Your task to perform on an android device: turn on wifi Image 0: 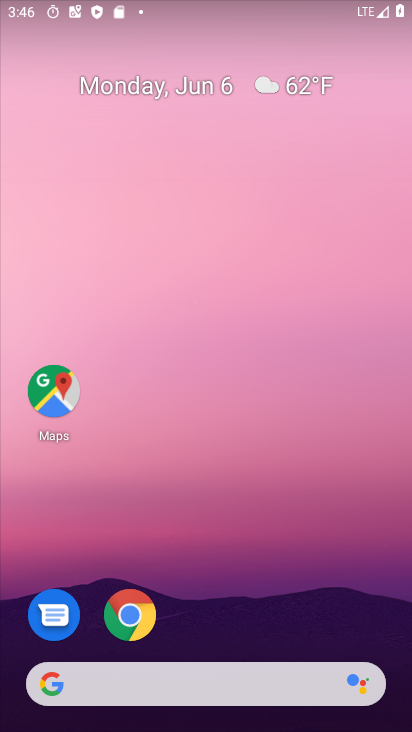
Step 0: drag from (285, 691) to (278, 75)
Your task to perform on an android device: turn on wifi Image 1: 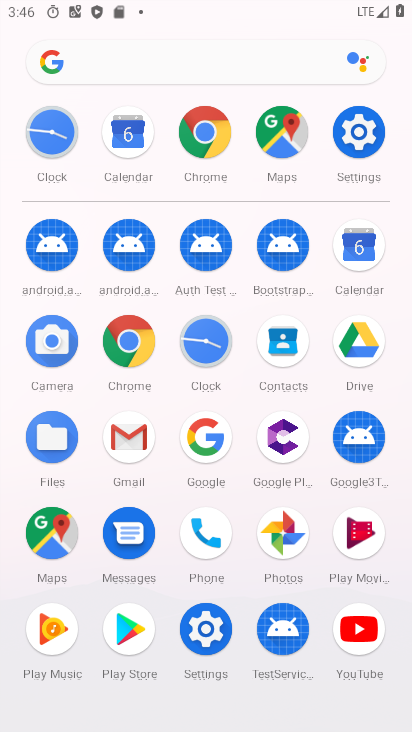
Step 1: click (362, 126)
Your task to perform on an android device: turn on wifi Image 2: 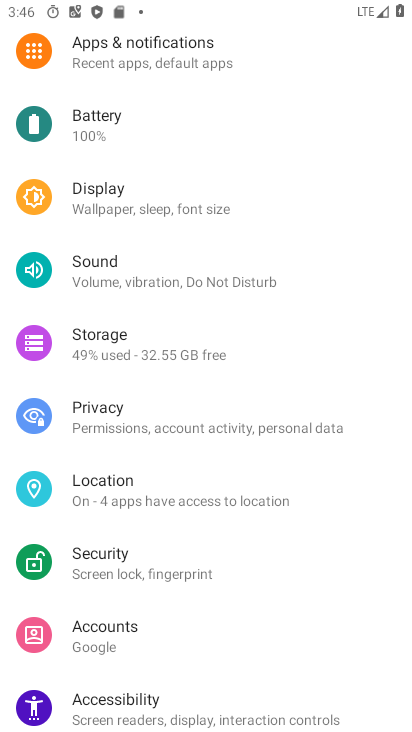
Step 2: drag from (173, 172) to (197, 713)
Your task to perform on an android device: turn on wifi Image 3: 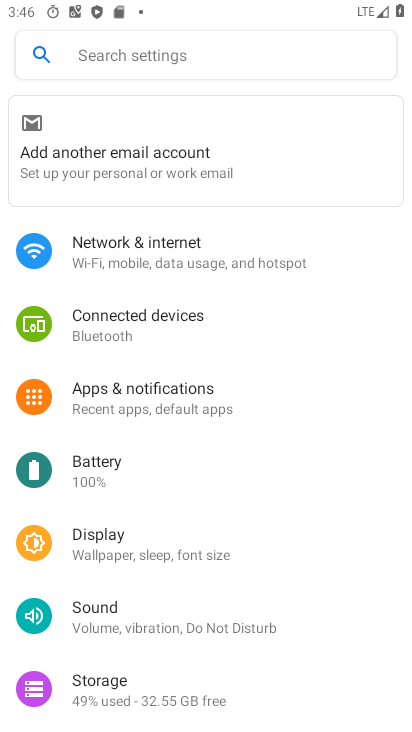
Step 3: click (228, 273)
Your task to perform on an android device: turn on wifi Image 4: 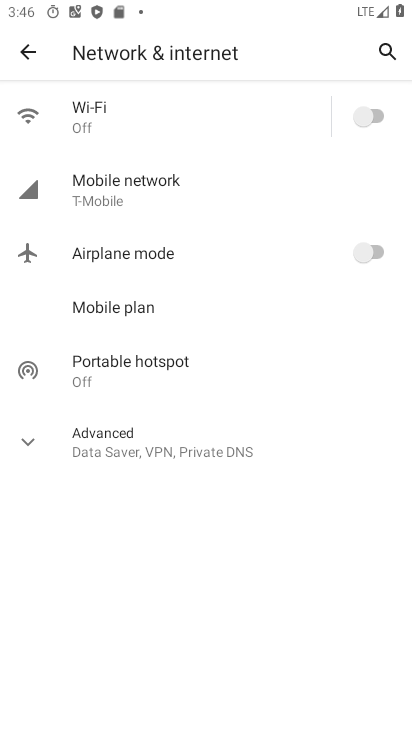
Step 4: click (362, 113)
Your task to perform on an android device: turn on wifi Image 5: 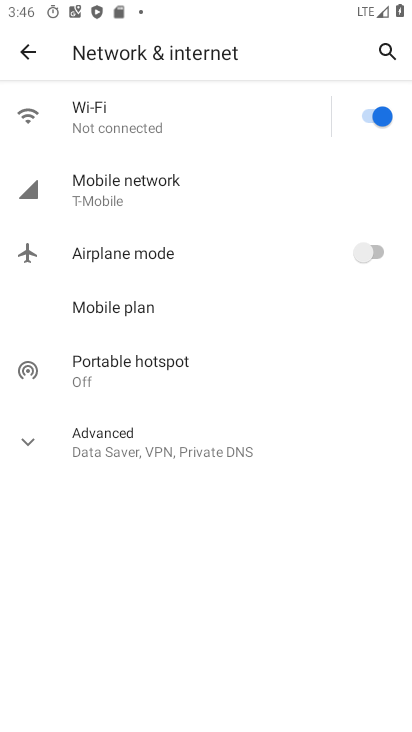
Step 5: task complete